Your task to perform on an android device: Open calendar and show me the first week of next month Image 0: 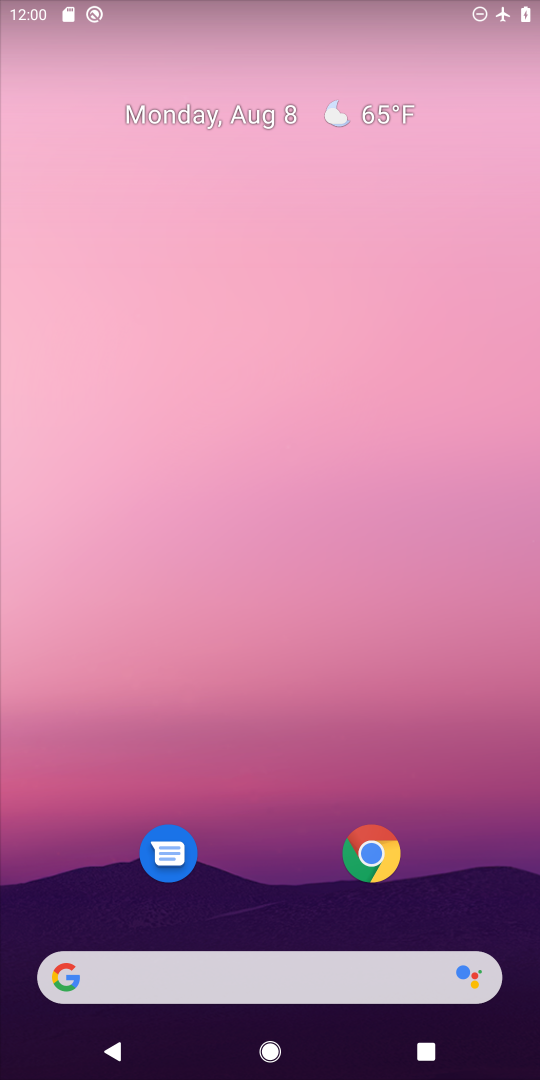
Step 0: drag from (313, 956) to (405, 123)
Your task to perform on an android device: Open calendar and show me the first week of next month Image 1: 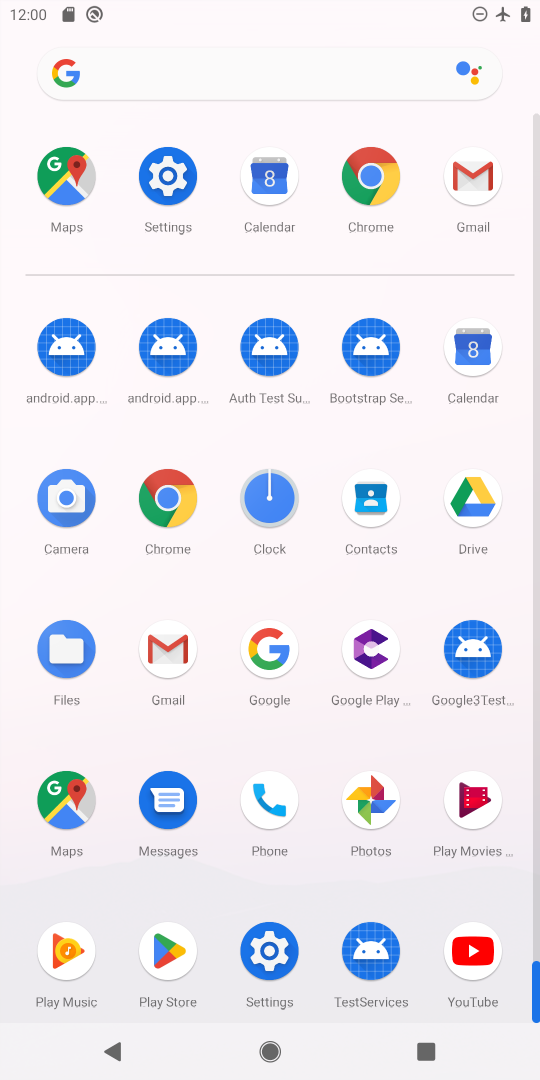
Step 1: click (468, 336)
Your task to perform on an android device: Open calendar and show me the first week of next month Image 2: 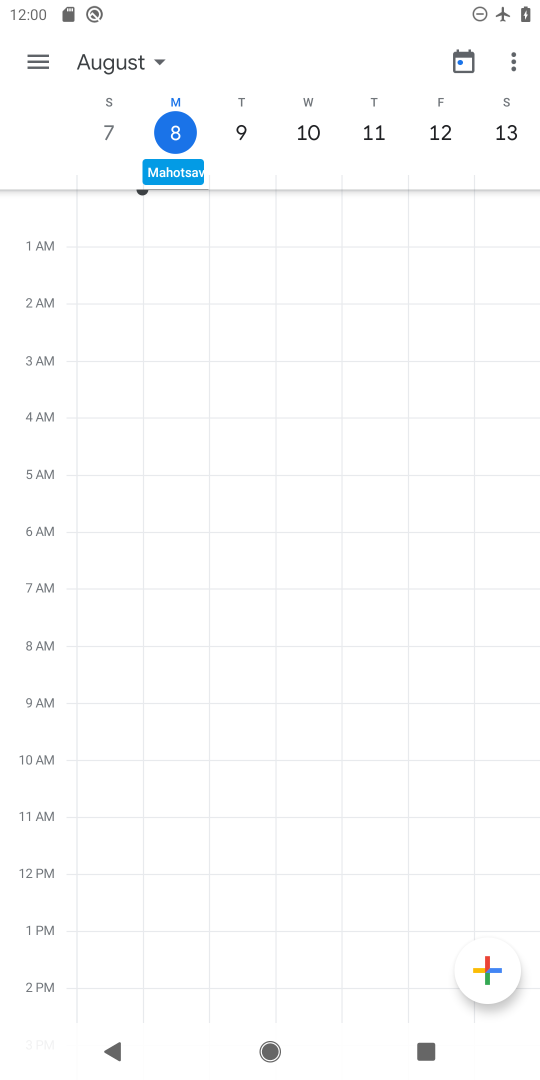
Step 2: task complete